Your task to perform on an android device: open wifi settings Image 0: 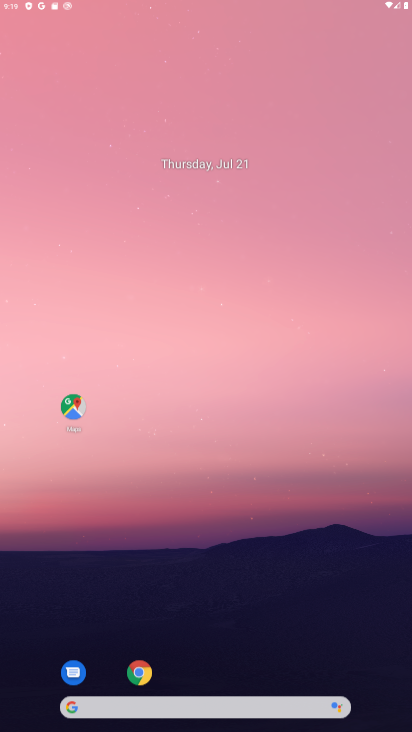
Step 0: press home button
Your task to perform on an android device: open wifi settings Image 1: 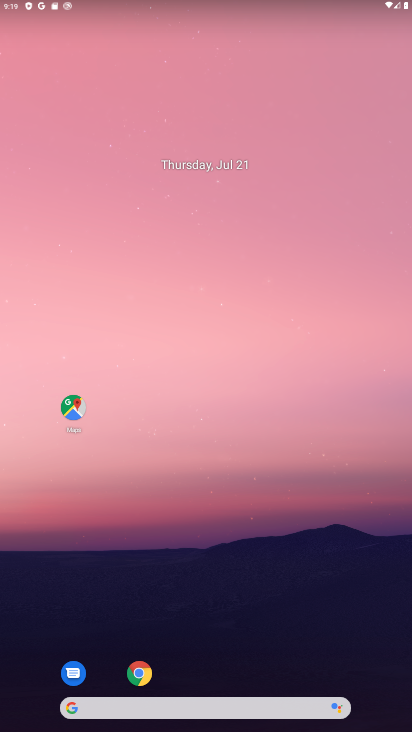
Step 1: drag from (230, 674) to (222, 40)
Your task to perform on an android device: open wifi settings Image 2: 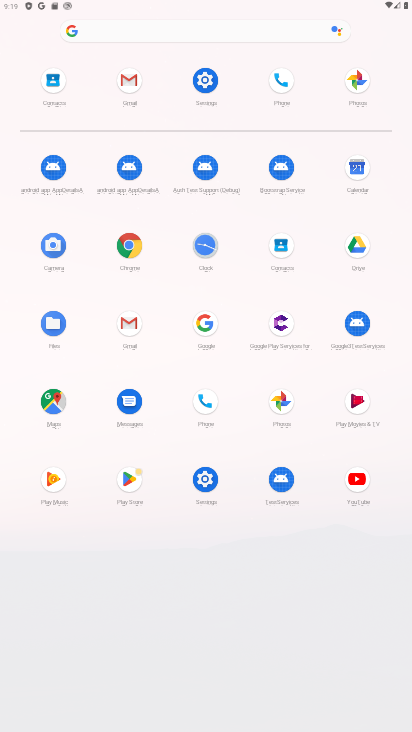
Step 2: click (204, 74)
Your task to perform on an android device: open wifi settings Image 3: 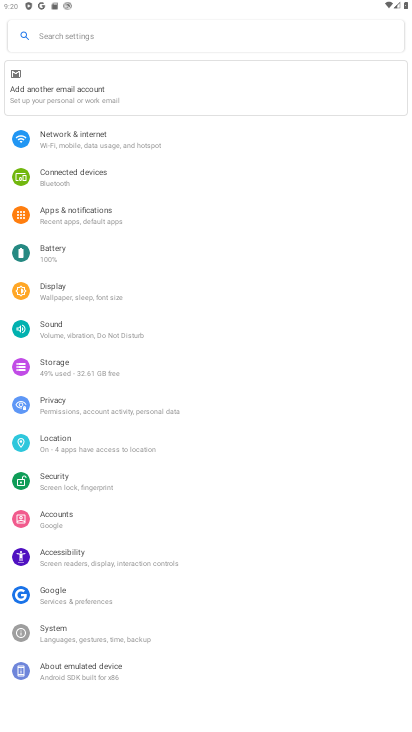
Step 3: click (130, 136)
Your task to perform on an android device: open wifi settings Image 4: 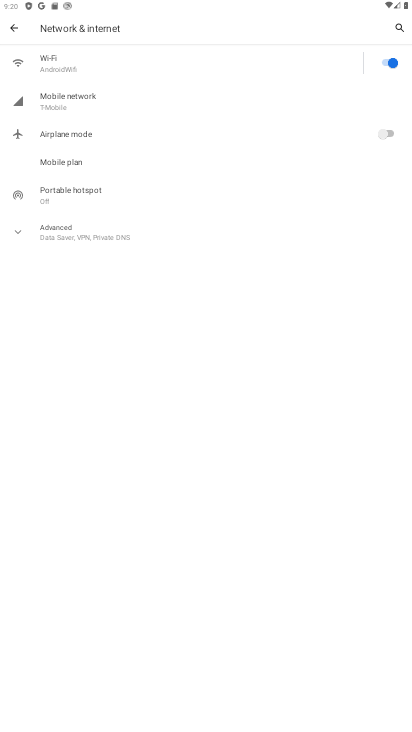
Step 4: click (105, 59)
Your task to perform on an android device: open wifi settings Image 5: 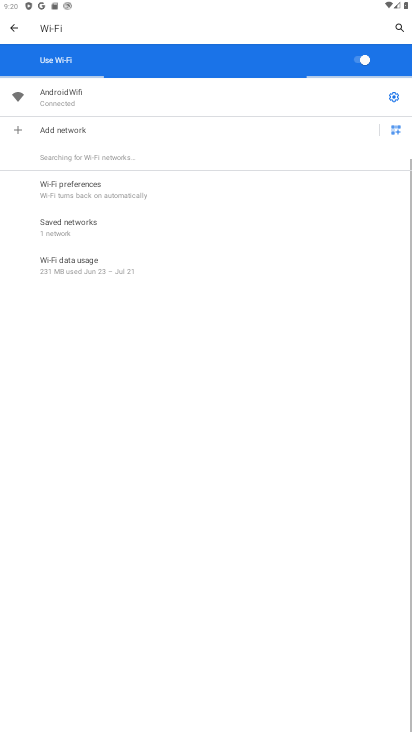
Step 5: task complete